Your task to perform on an android device: Open the calendar and show me this week's events? Image 0: 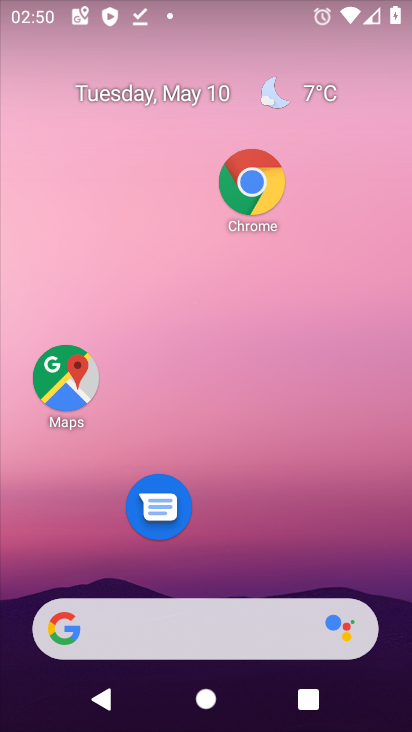
Step 0: drag from (317, 527) to (228, 149)
Your task to perform on an android device: Open the calendar and show me this week's events? Image 1: 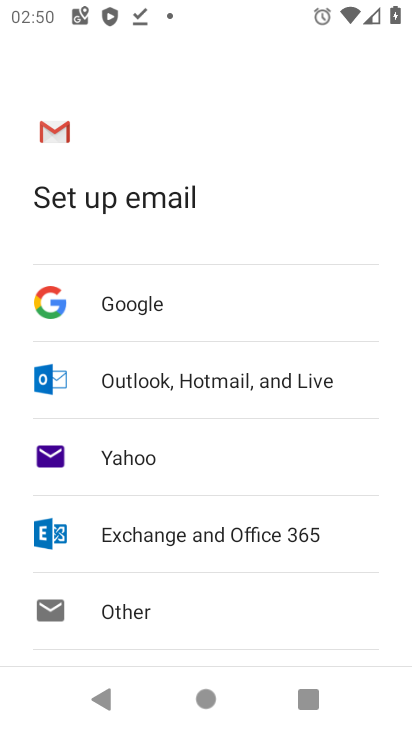
Step 1: press home button
Your task to perform on an android device: Open the calendar and show me this week's events? Image 2: 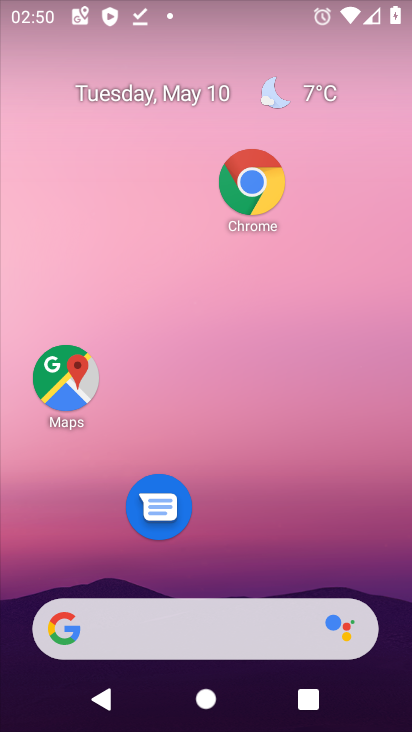
Step 2: drag from (343, 560) to (263, 145)
Your task to perform on an android device: Open the calendar and show me this week's events? Image 3: 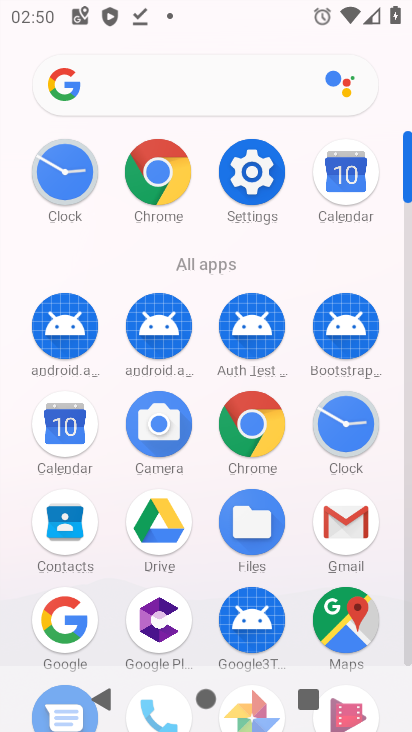
Step 3: click (64, 447)
Your task to perform on an android device: Open the calendar and show me this week's events? Image 4: 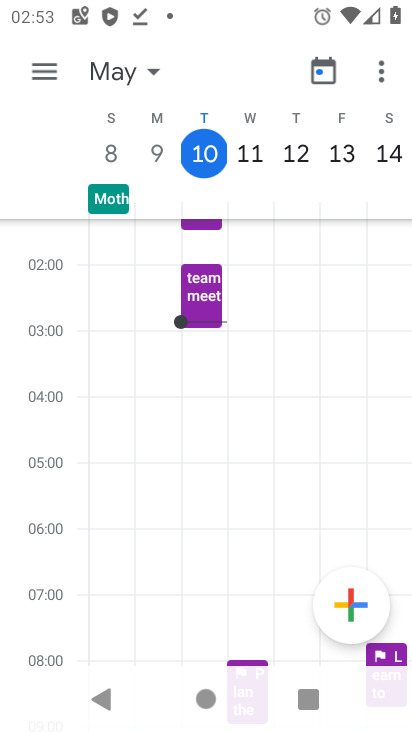
Step 4: task complete